Your task to perform on an android device: Search for Mexican restaurants on Maps Image 0: 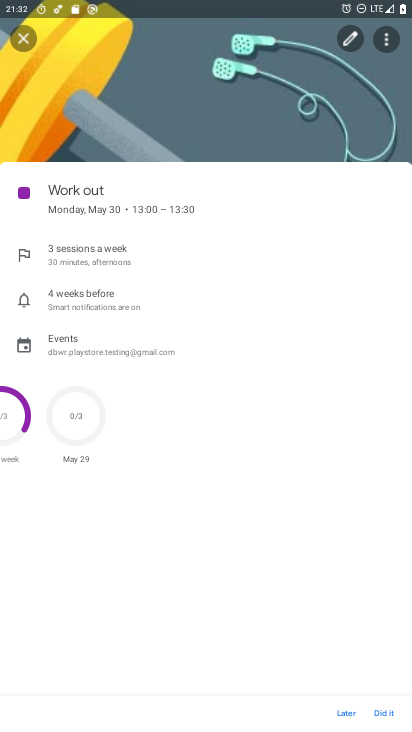
Step 0: drag from (140, 189) to (279, 619)
Your task to perform on an android device: Search for Mexican restaurants on Maps Image 1: 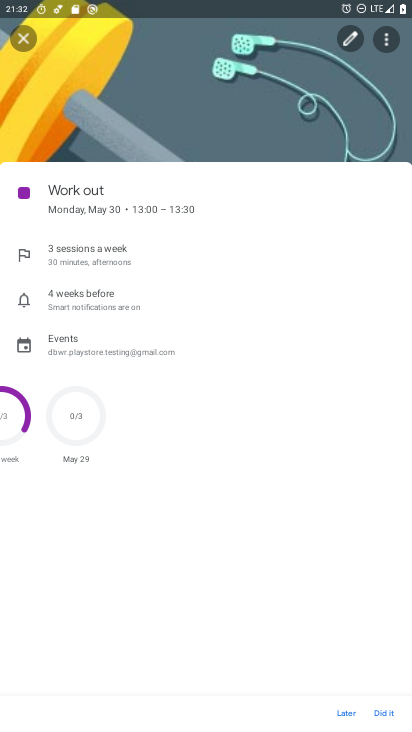
Step 1: drag from (253, 442) to (257, 707)
Your task to perform on an android device: Search for Mexican restaurants on Maps Image 2: 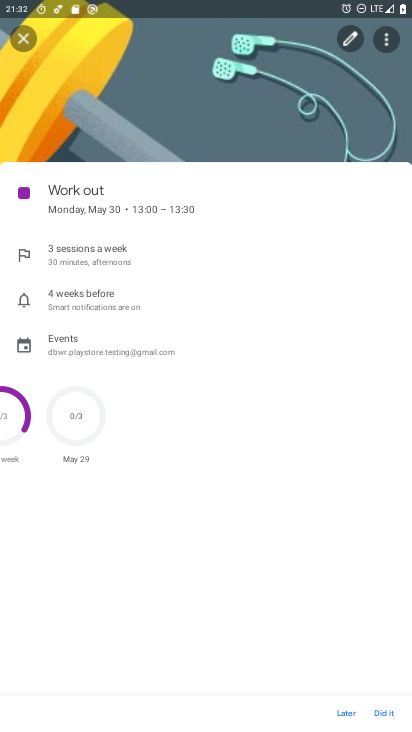
Step 2: drag from (315, 610) to (315, 344)
Your task to perform on an android device: Search for Mexican restaurants on Maps Image 3: 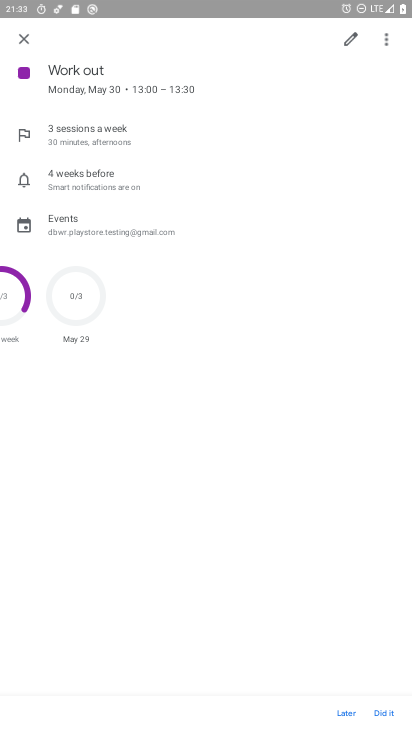
Step 3: drag from (200, 490) to (232, 334)
Your task to perform on an android device: Search for Mexican restaurants on Maps Image 4: 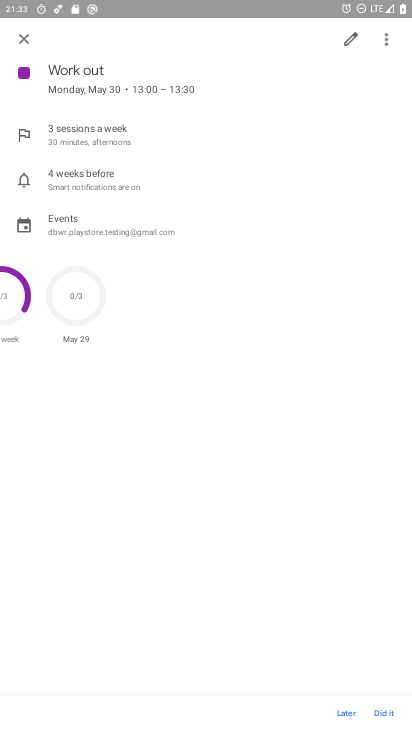
Step 4: drag from (314, 642) to (293, 365)
Your task to perform on an android device: Search for Mexican restaurants on Maps Image 5: 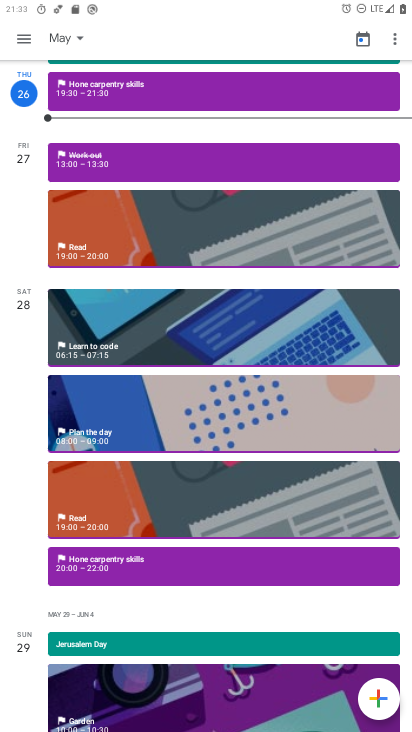
Step 5: press home button
Your task to perform on an android device: Search for Mexican restaurants on Maps Image 6: 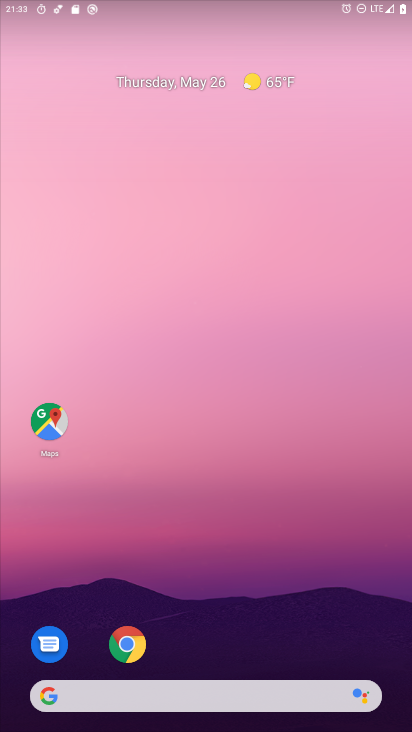
Step 6: drag from (148, 635) to (189, 355)
Your task to perform on an android device: Search for Mexican restaurants on Maps Image 7: 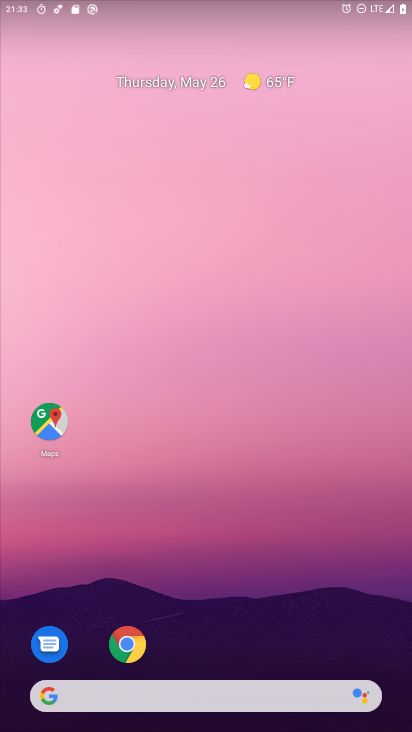
Step 7: drag from (216, 661) to (245, 346)
Your task to perform on an android device: Search for Mexican restaurants on Maps Image 8: 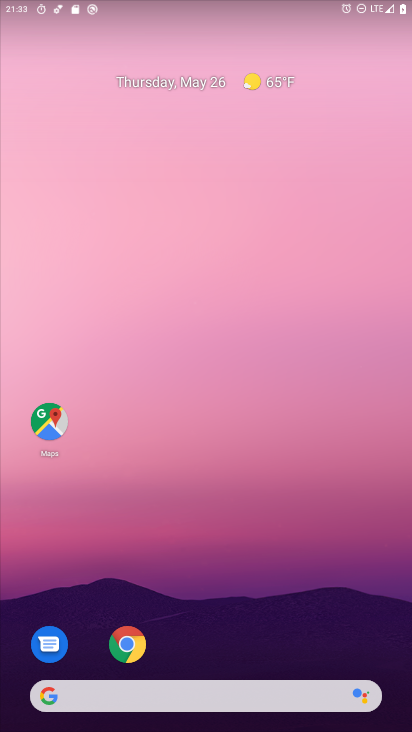
Step 8: click (47, 420)
Your task to perform on an android device: Search for Mexican restaurants on Maps Image 9: 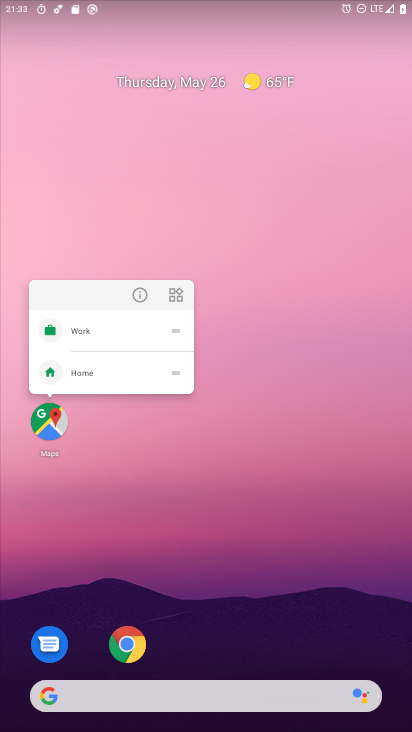
Step 9: click (138, 293)
Your task to perform on an android device: Search for Mexican restaurants on Maps Image 10: 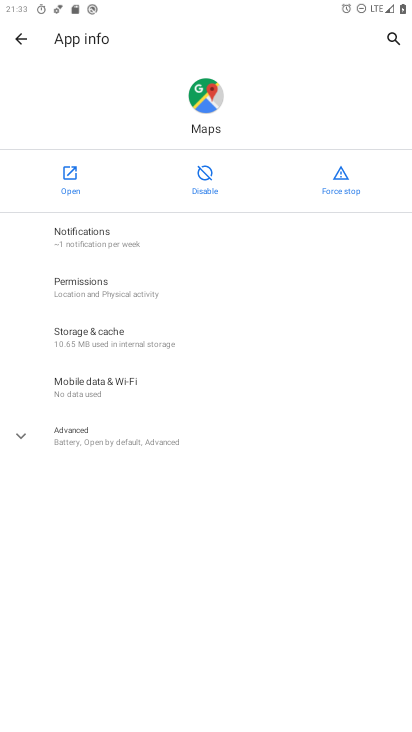
Step 10: click (64, 194)
Your task to perform on an android device: Search for Mexican restaurants on Maps Image 11: 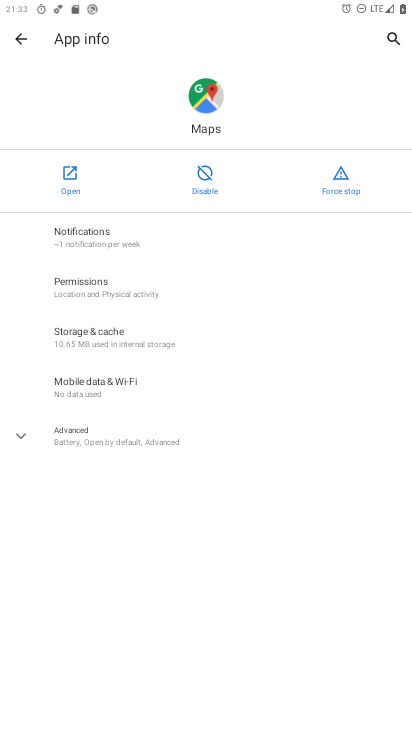
Step 11: click (62, 193)
Your task to perform on an android device: Search for Mexican restaurants on Maps Image 12: 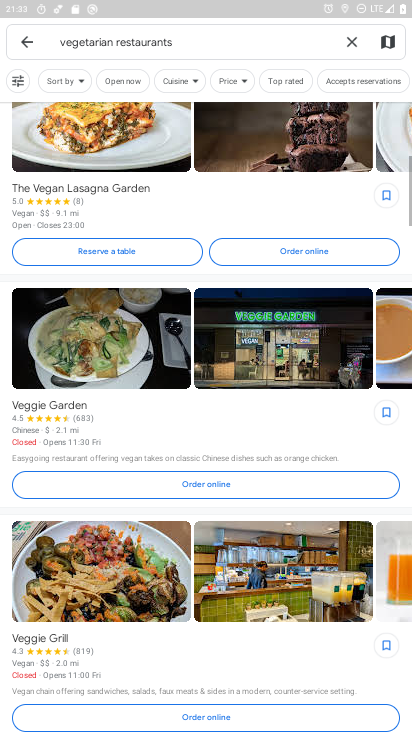
Step 12: click (353, 31)
Your task to perform on an android device: Search for Mexican restaurants on Maps Image 13: 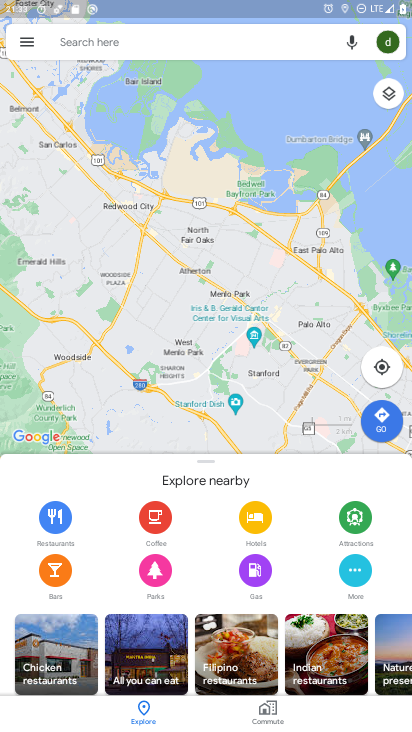
Step 13: click (112, 36)
Your task to perform on an android device: Search for Mexican restaurants on Maps Image 14: 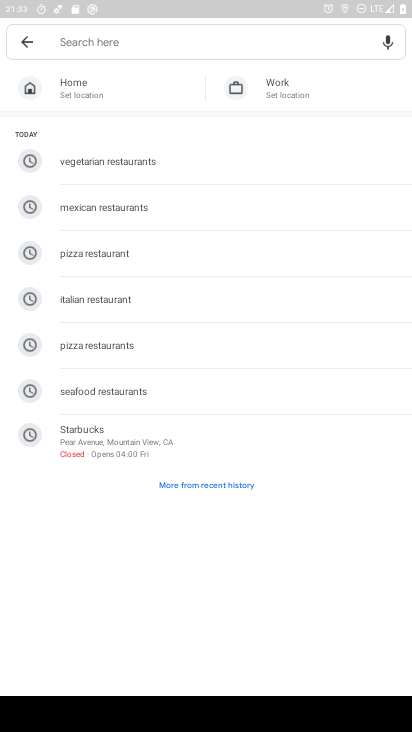
Step 14: click (122, 204)
Your task to perform on an android device: Search for Mexican restaurants on Maps Image 15: 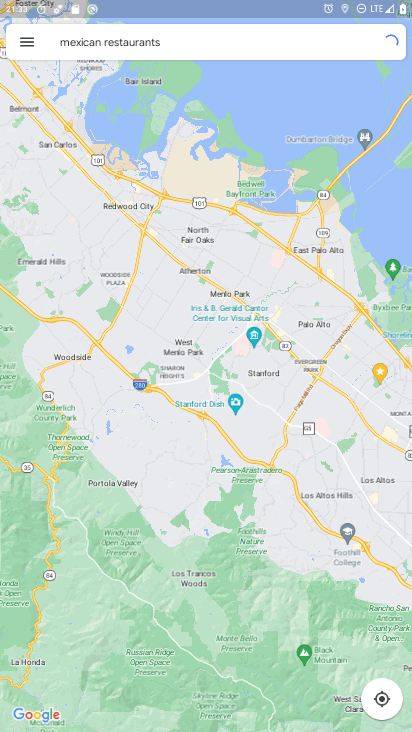
Step 15: task complete